Your task to perform on an android device: check out phone information Image 0: 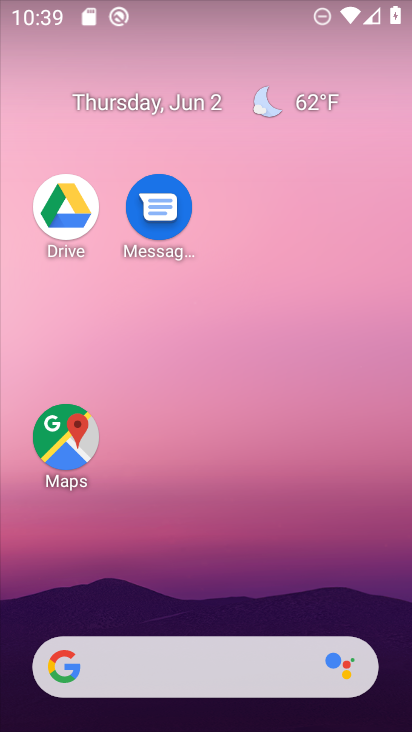
Step 0: drag from (207, 622) to (203, 55)
Your task to perform on an android device: check out phone information Image 1: 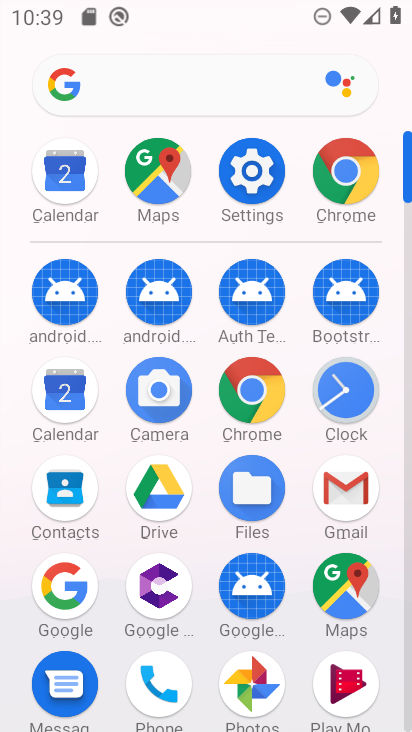
Step 1: click (230, 181)
Your task to perform on an android device: check out phone information Image 2: 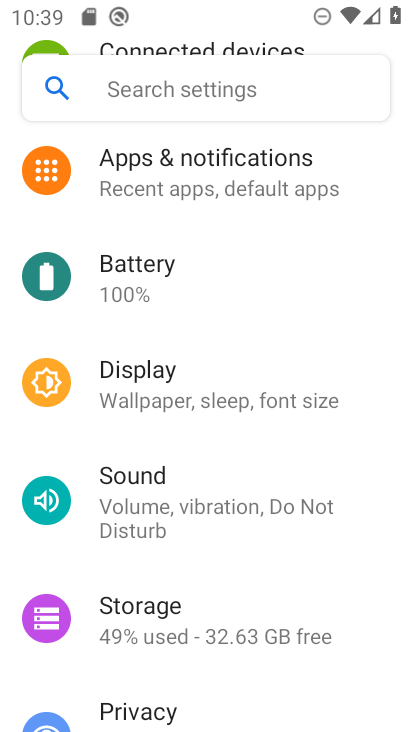
Step 2: drag from (201, 639) to (196, 102)
Your task to perform on an android device: check out phone information Image 3: 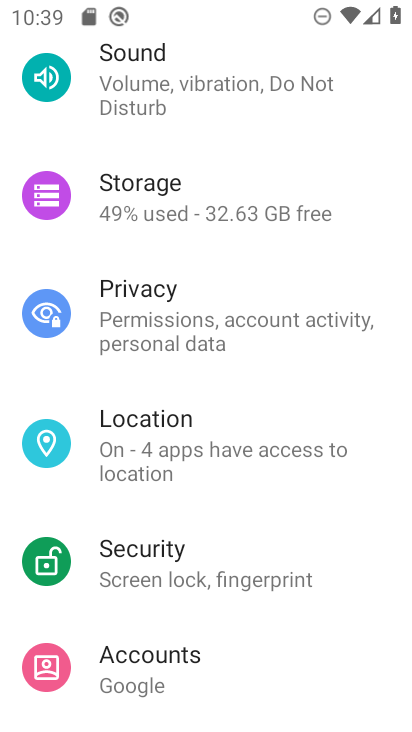
Step 3: drag from (225, 719) to (154, 158)
Your task to perform on an android device: check out phone information Image 4: 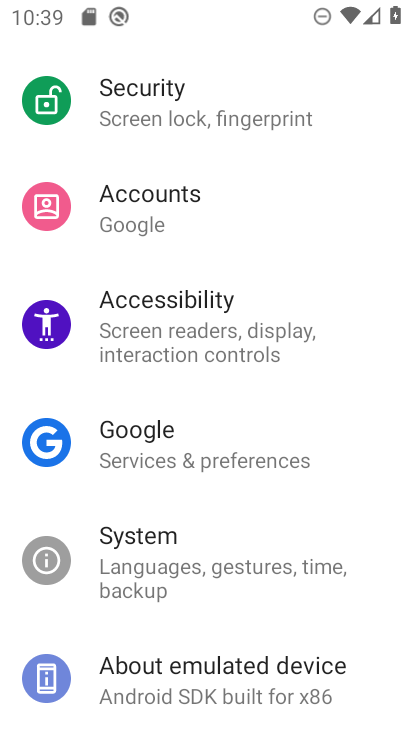
Step 4: click (187, 672)
Your task to perform on an android device: check out phone information Image 5: 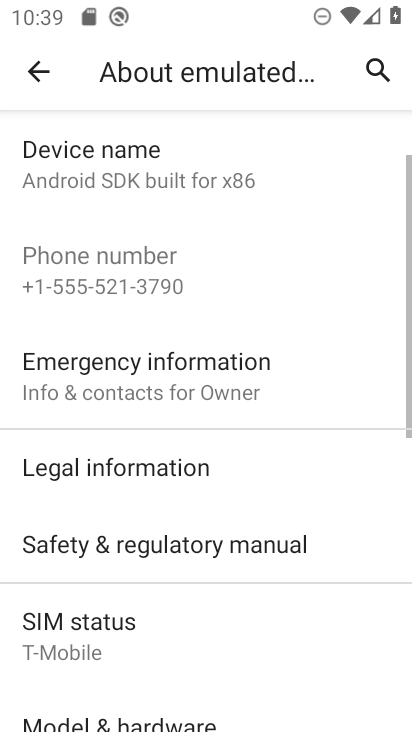
Step 5: task complete